Your task to perform on an android device: Open Chrome and go to settings Image 0: 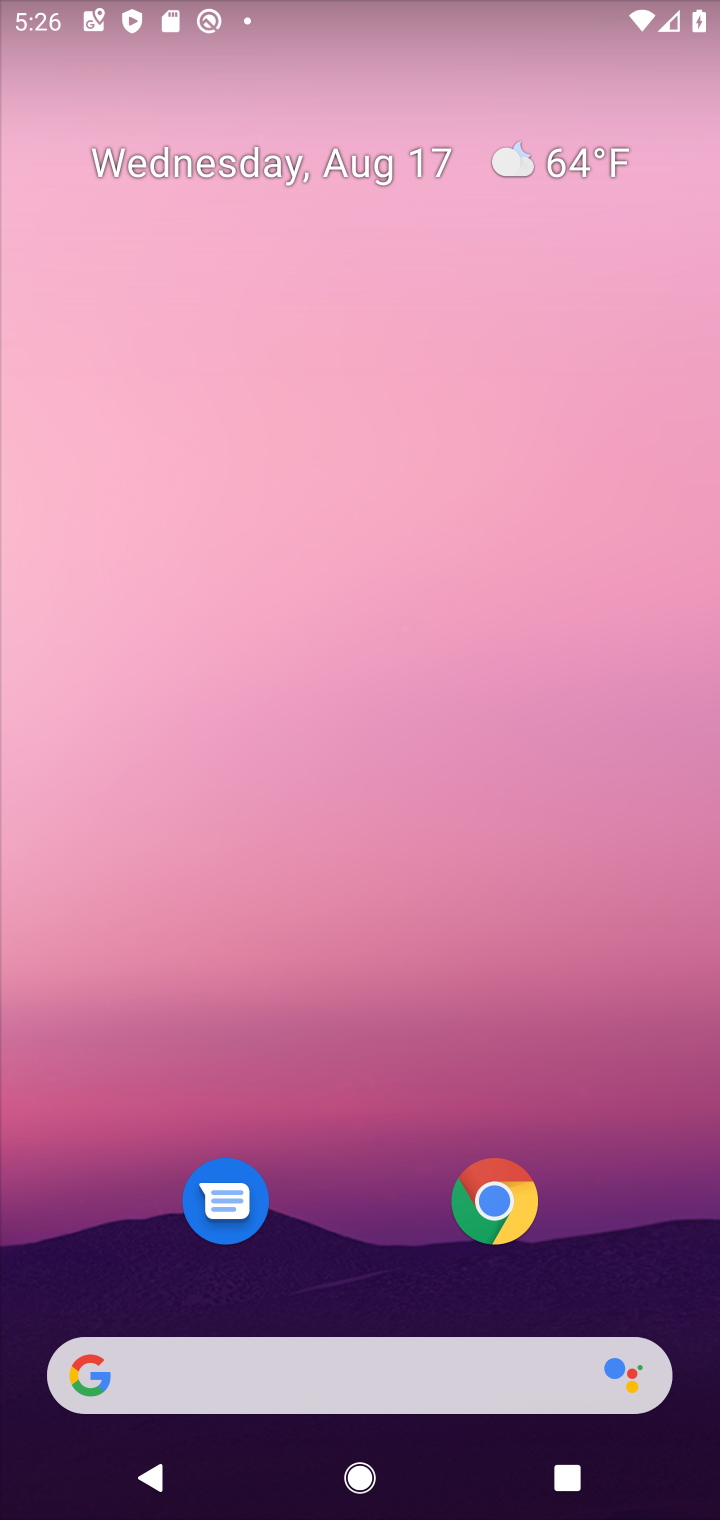
Step 0: click (503, 1211)
Your task to perform on an android device: Open Chrome and go to settings Image 1: 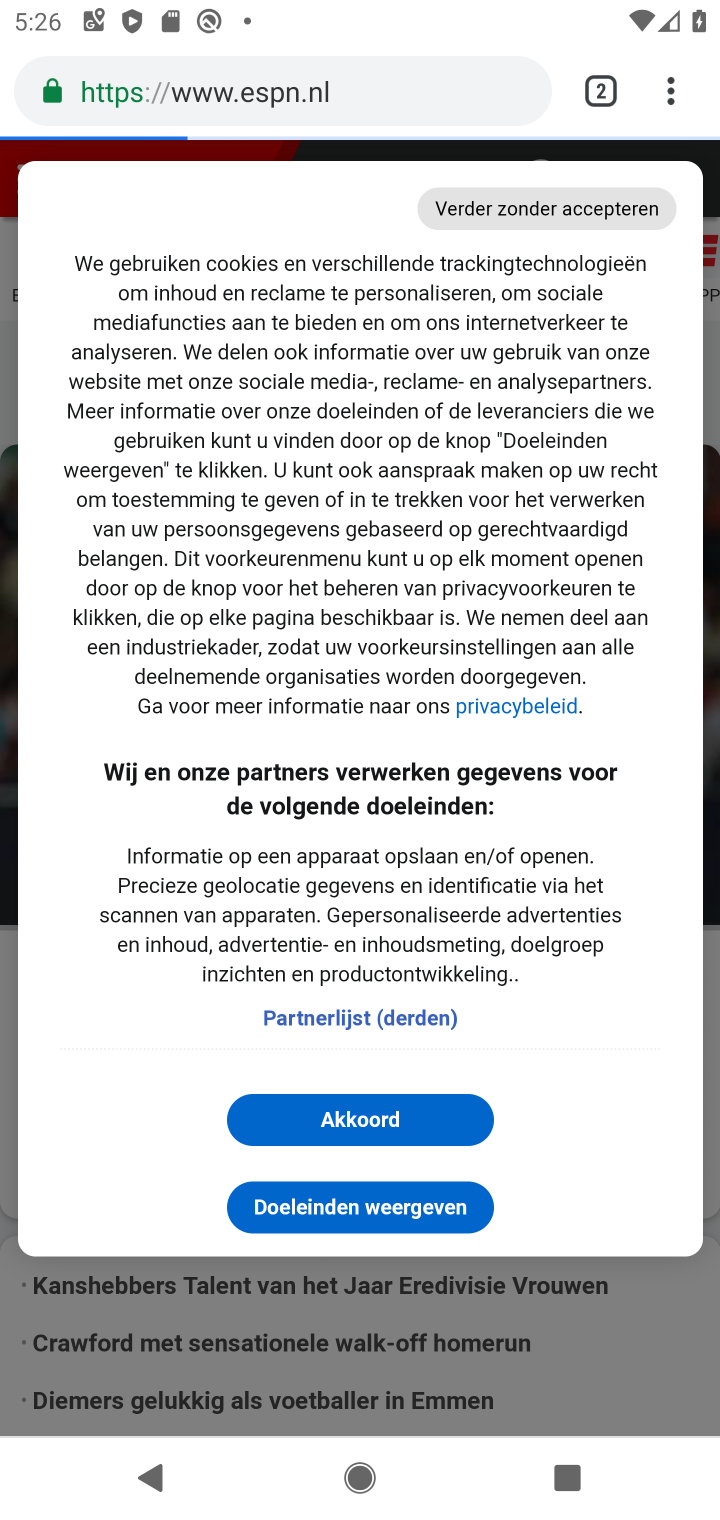
Step 1: click (284, 1119)
Your task to perform on an android device: Open Chrome and go to settings Image 2: 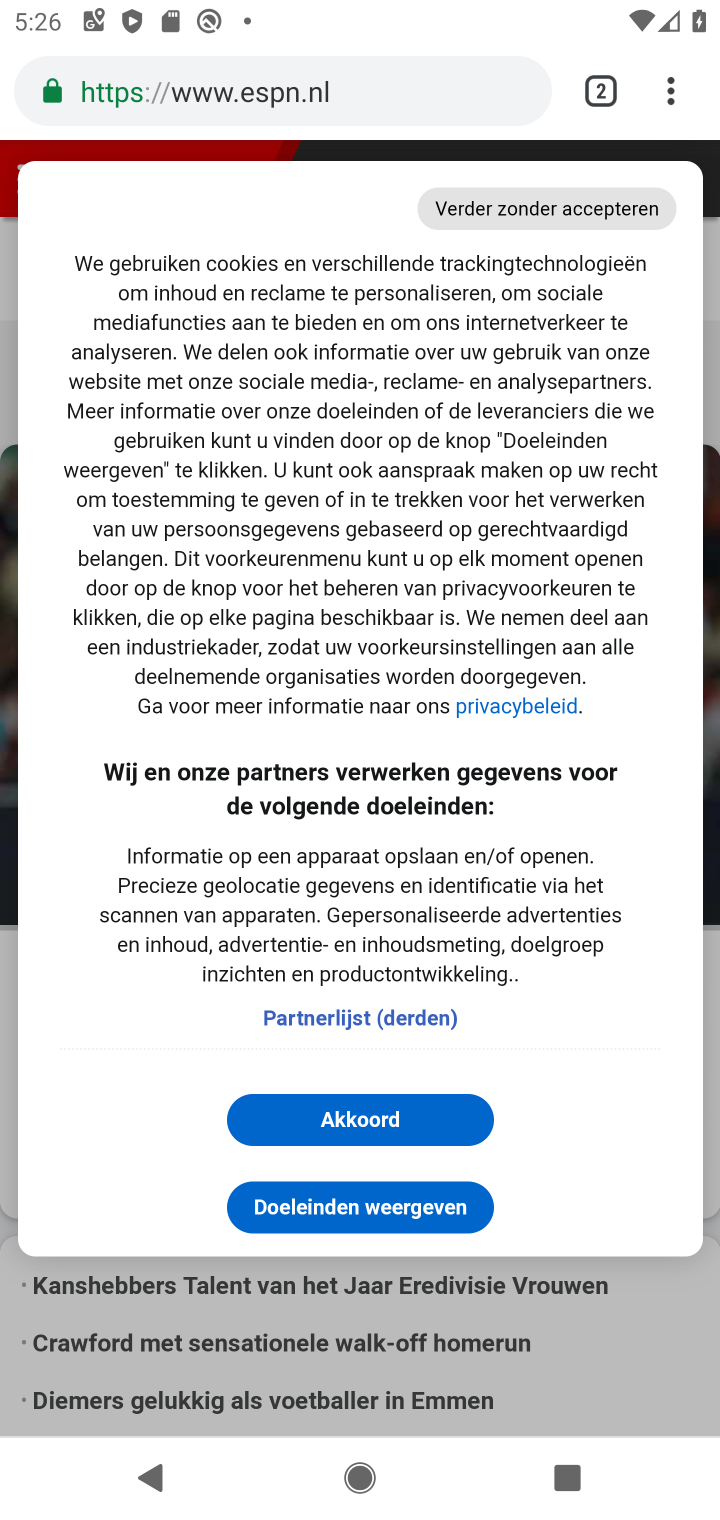
Step 2: task complete